Your task to perform on an android device: toggle data saver in the chrome app Image 0: 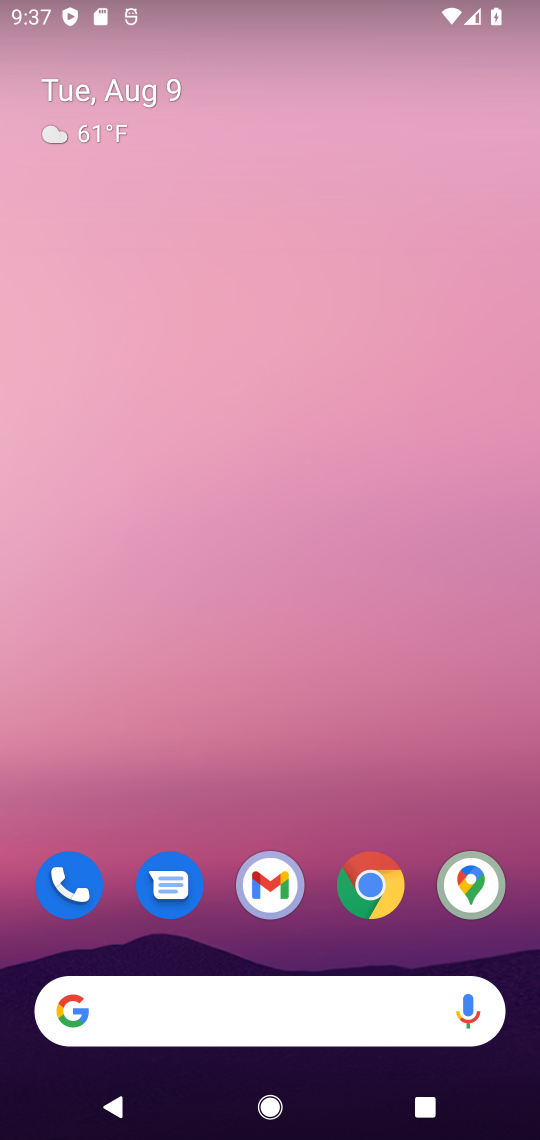
Step 0: press home button
Your task to perform on an android device: toggle data saver in the chrome app Image 1: 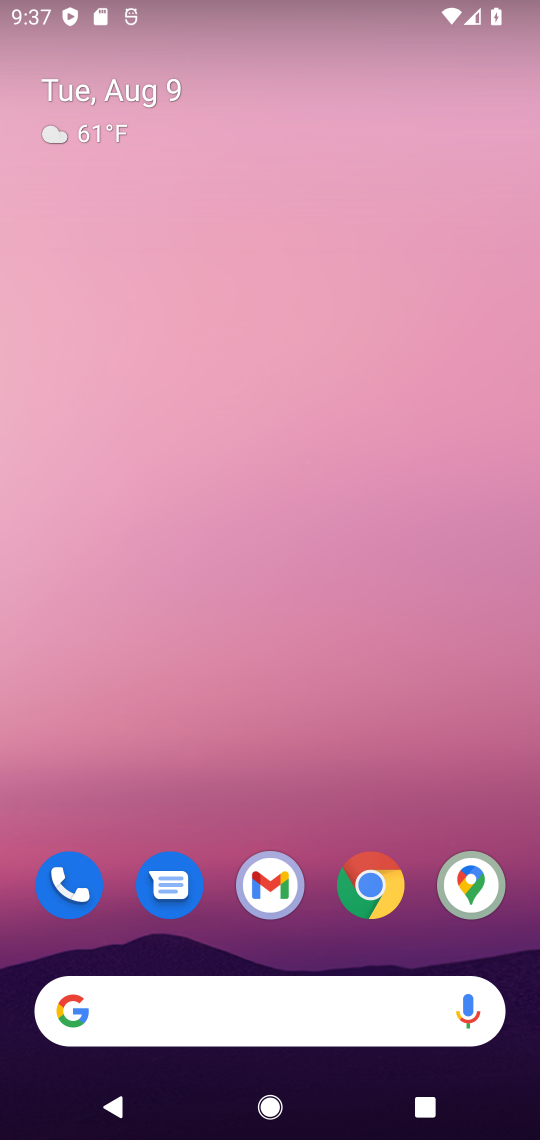
Step 1: drag from (326, 940) to (362, 195)
Your task to perform on an android device: toggle data saver in the chrome app Image 2: 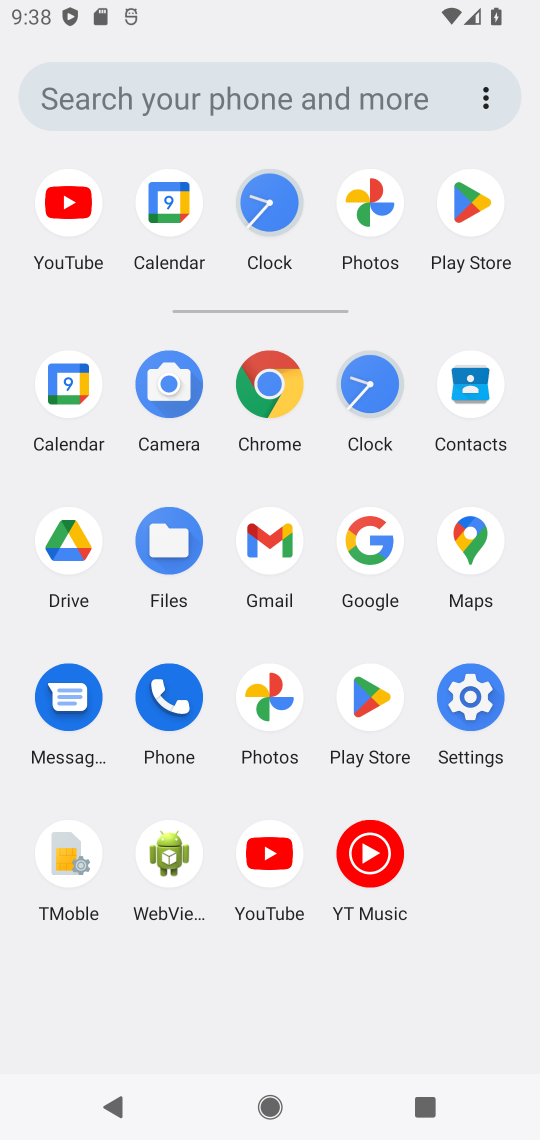
Step 2: click (269, 373)
Your task to perform on an android device: toggle data saver in the chrome app Image 3: 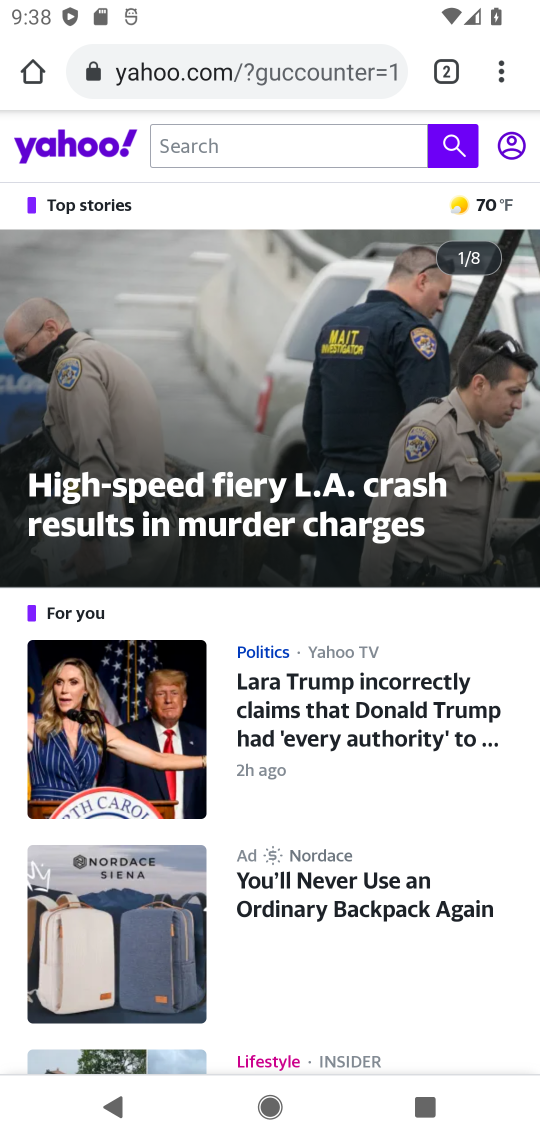
Step 3: click (505, 60)
Your task to perform on an android device: toggle data saver in the chrome app Image 4: 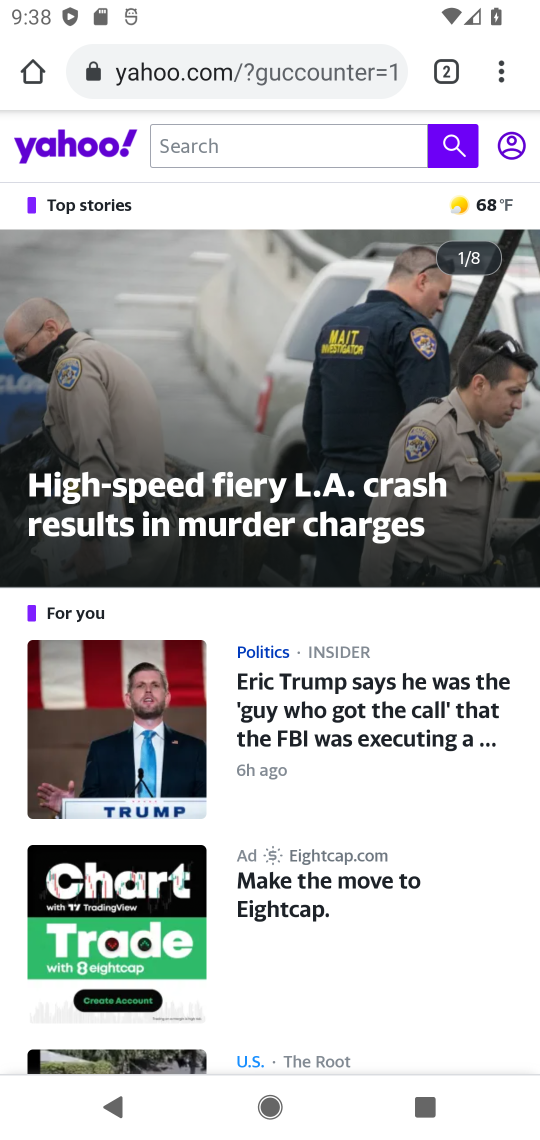
Step 4: click (506, 63)
Your task to perform on an android device: toggle data saver in the chrome app Image 5: 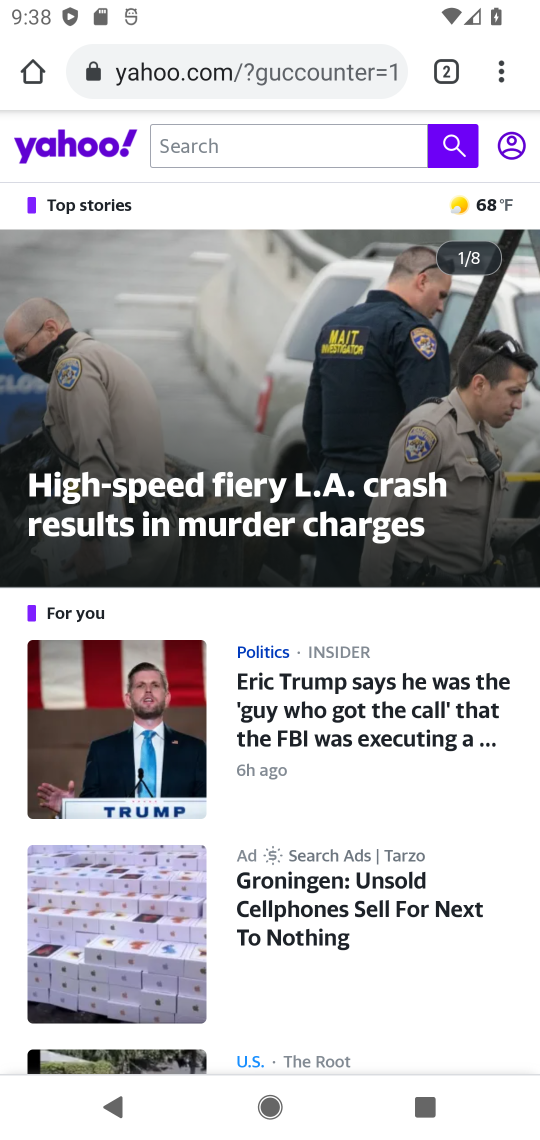
Step 5: click (501, 70)
Your task to perform on an android device: toggle data saver in the chrome app Image 6: 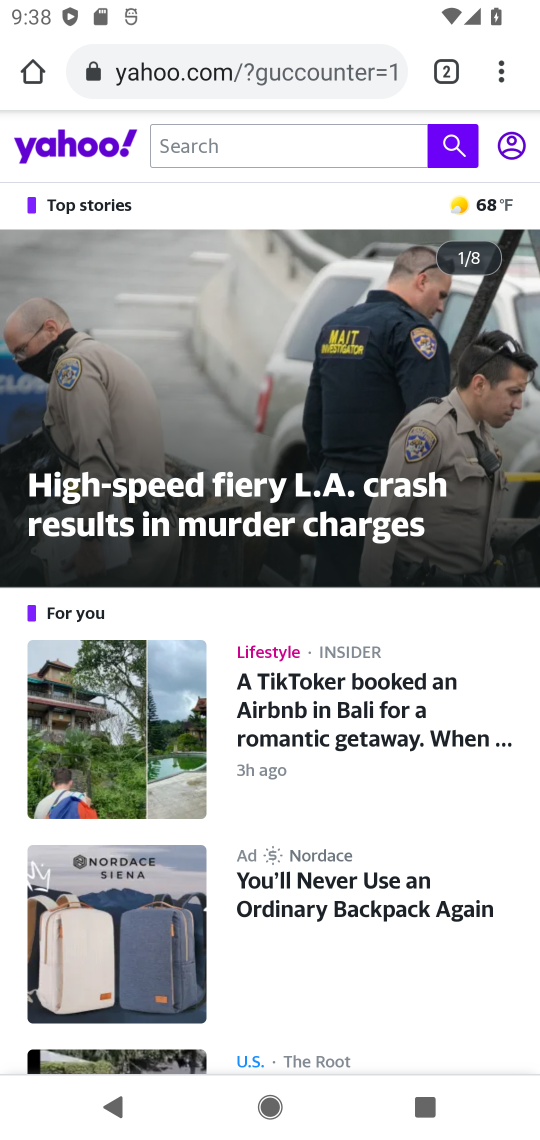
Step 6: click (508, 66)
Your task to perform on an android device: toggle data saver in the chrome app Image 7: 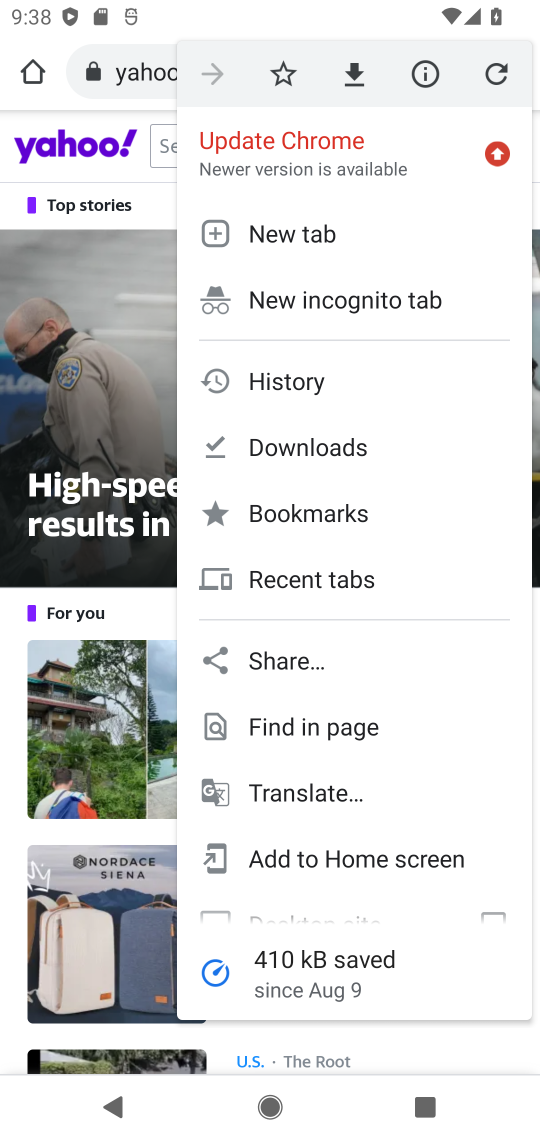
Step 7: drag from (359, 797) to (356, 146)
Your task to perform on an android device: toggle data saver in the chrome app Image 8: 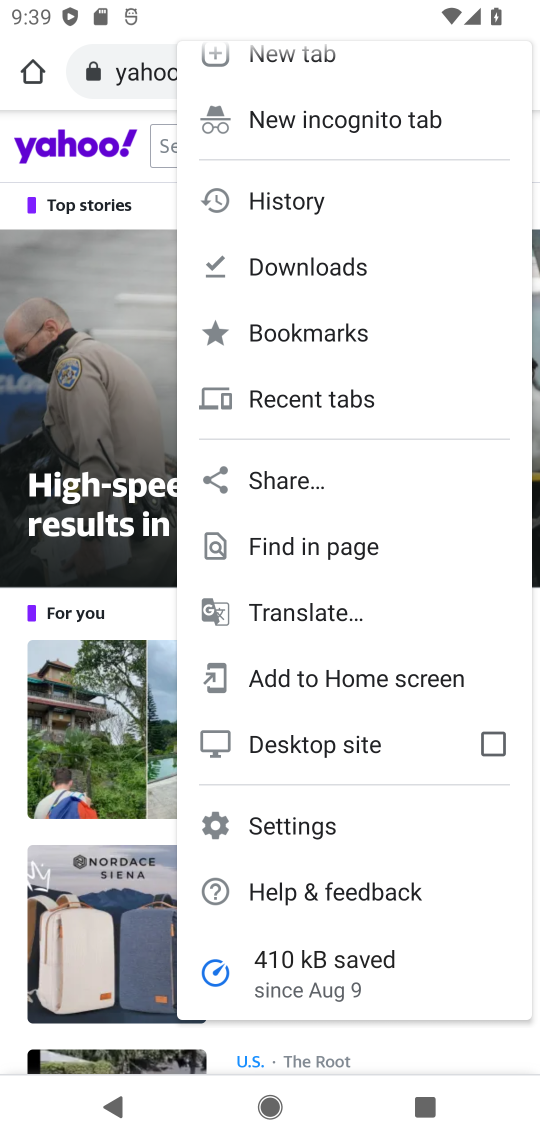
Step 8: click (343, 815)
Your task to perform on an android device: toggle data saver in the chrome app Image 9: 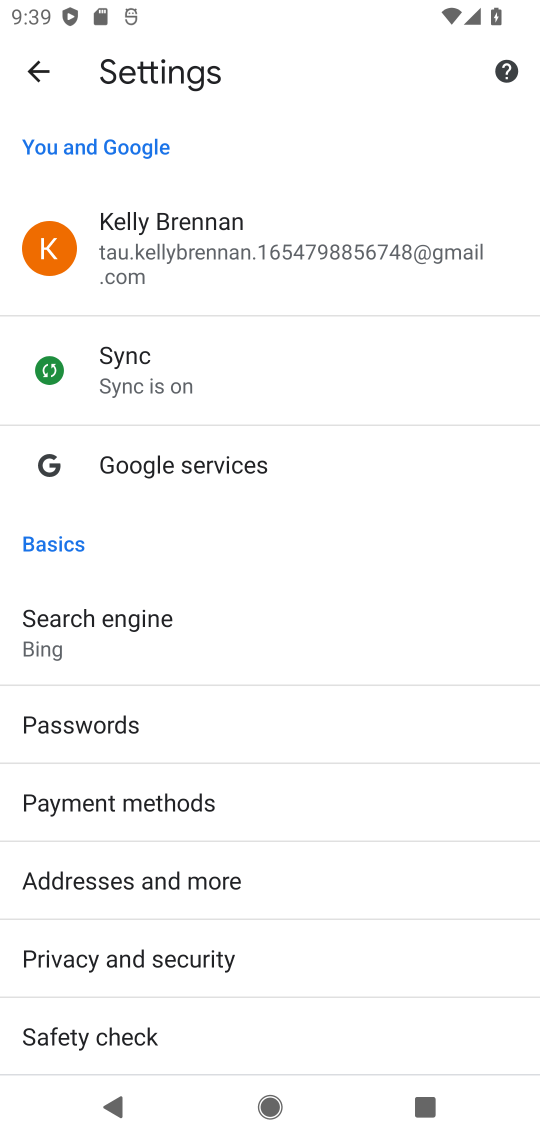
Step 9: drag from (273, 1009) to (316, 209)
Your task to perform on an android device: toggle data saver in the chrome app Image 10: 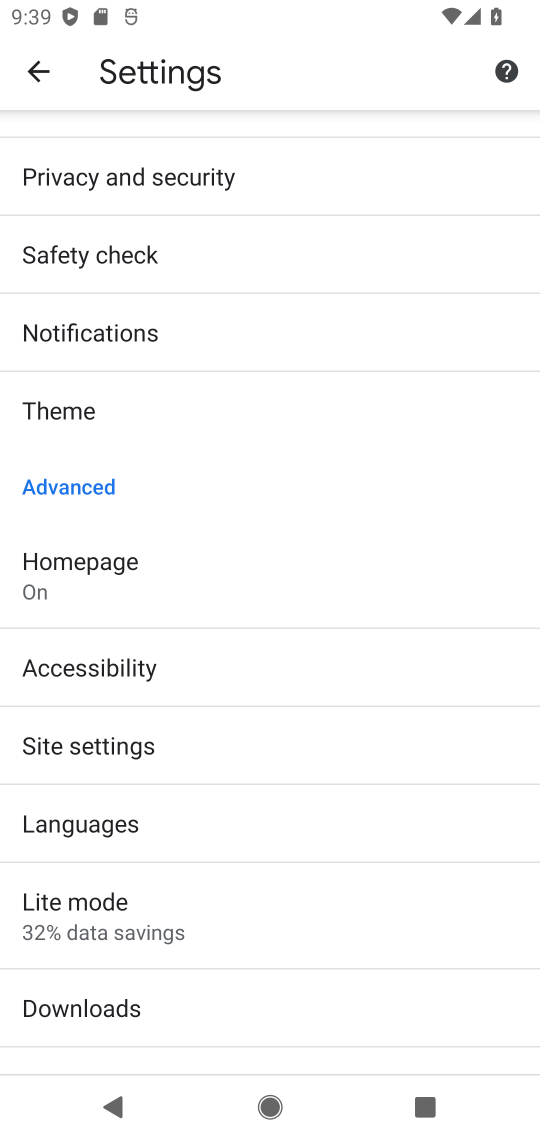
Step 10: click (179, 916)
Your task to perform on an android device: toggle data saver in the chrome app Image 11: 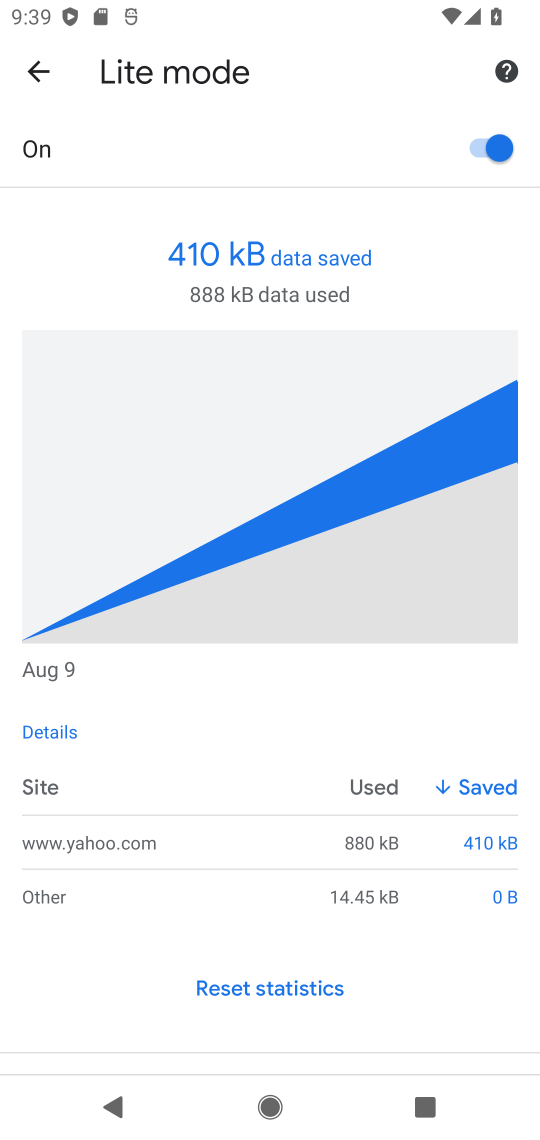
Step 11: task complete